Your task to perform on an android device: Go to CNN.com Image 0: 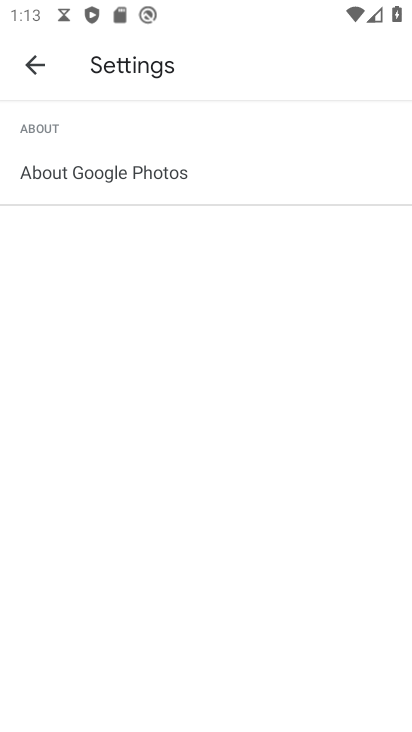
Step 0: press home button
Your task to perform on an android device: Go to CNN.com Image 1: 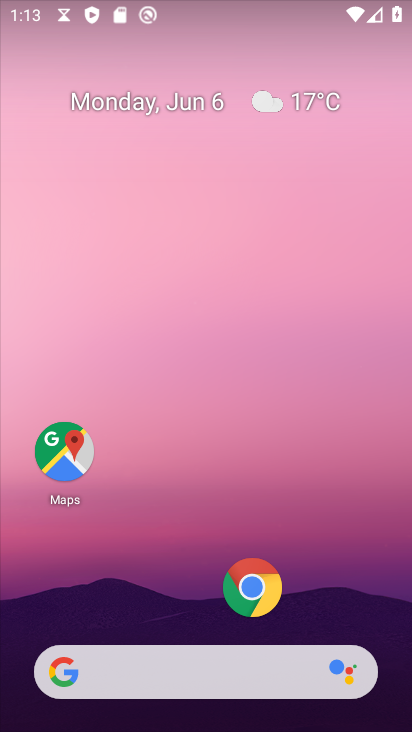
Step 1: click (254, 570)
Your task to perform on an android device: Go to CNN.com Image 2: 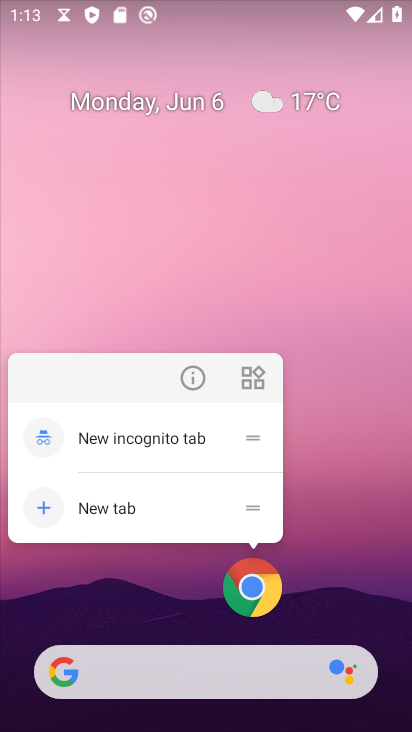
Step 2: click (250, 582)
Your task to perform on an android device: Go to CNN.com Image 3: 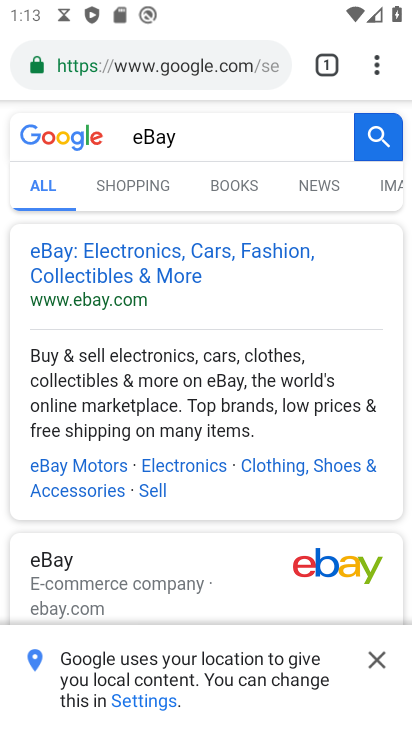
Step 3: click (179, 65)
Your task to perform on an android device: Go to CNN.com Image 4: 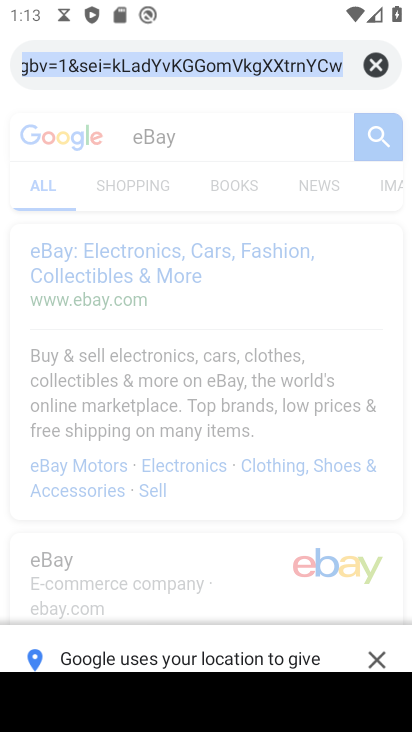
Step 4: type "CNN.com"
Your task to perform on an android device: Go to CNN.com Image 5: 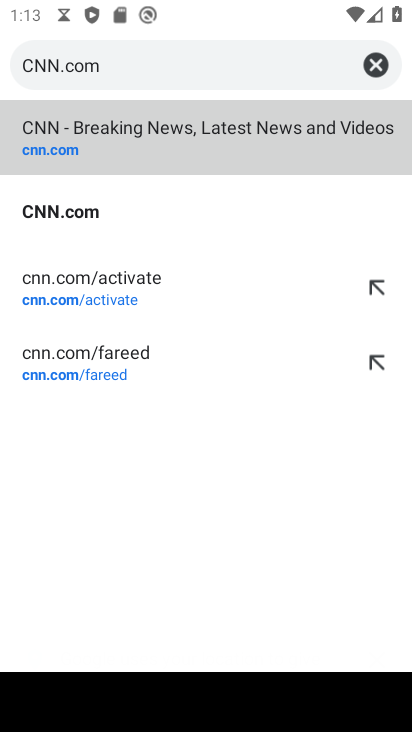
Step 5: click (229, 139)
Your task to perform on an android device: Go to CNN.com Image 6: 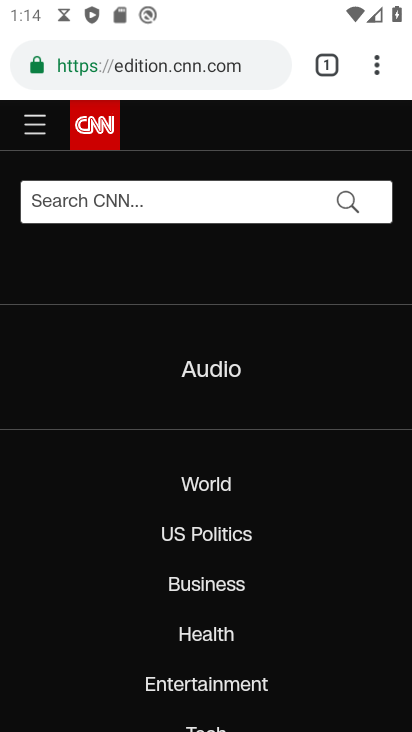
Step 6: task complete